Your task to perform on an android device: Open Reddit.com Image 0: 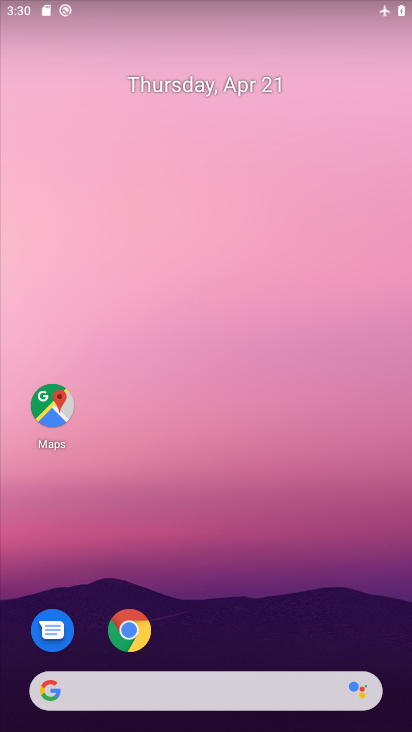
Step 0: drag from (185, 659) to (192, 228)
Your task to perform on an android device: Open Reddit.com Image 1: 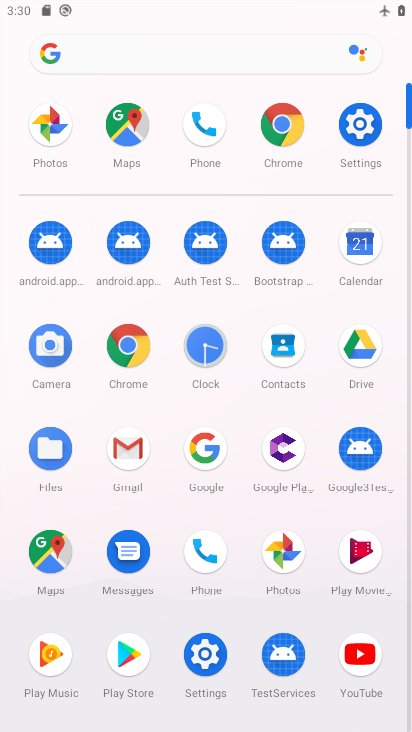
Step 1: click (282, 114)
Your task to perform on an android device: Open Reddit.com Image 2: 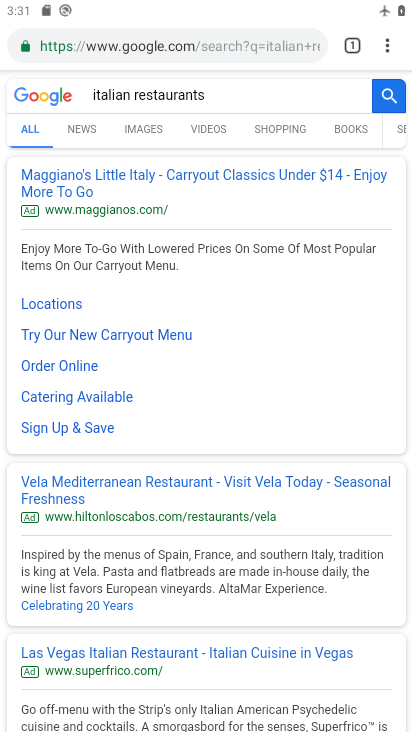
Step 2: click (212, 59)
Your task to perform on an android device: Open Reddit.com Image 3: 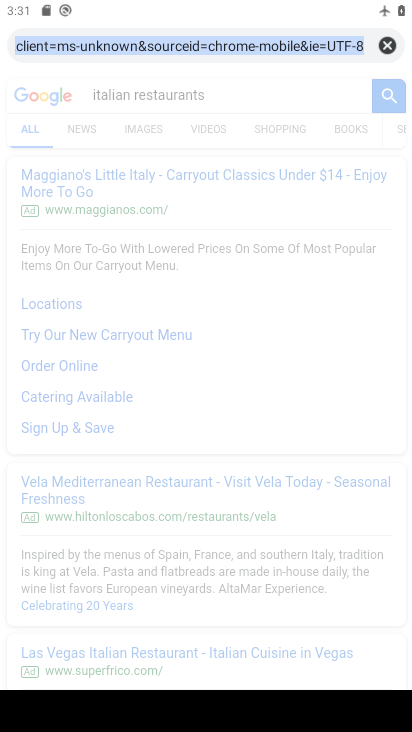
Step 3: click (393, 43)
Your task to perform on an android device: Open Reddit.com Image 4: 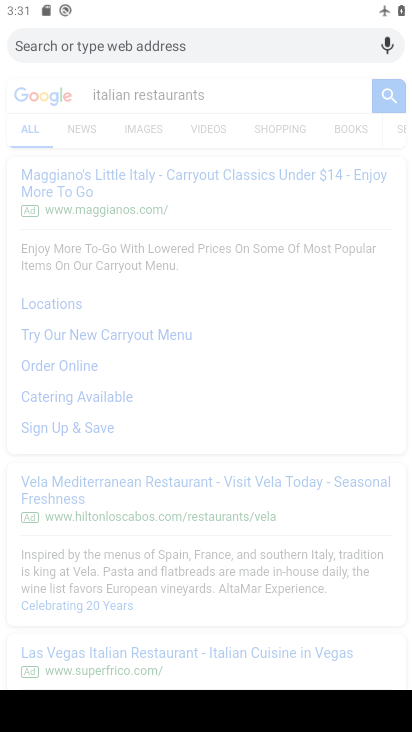
Step 4: type "reddit.com"
Your task to perform on an android device: Open Reddit.com Image 5: 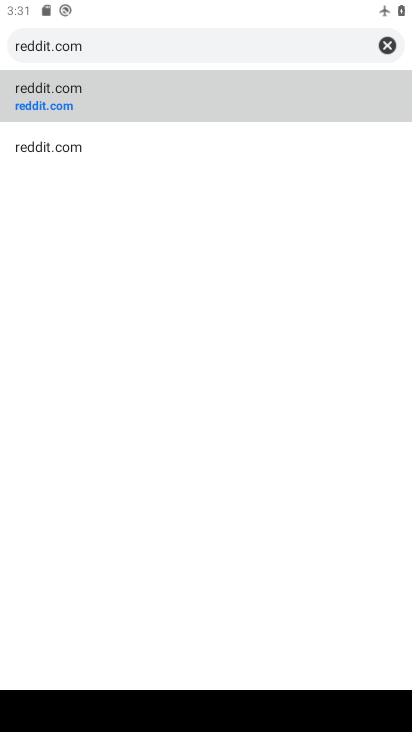
Step 5: click (59, 106)
Your task to perform on an android device: Open Reddit.com Image 6: 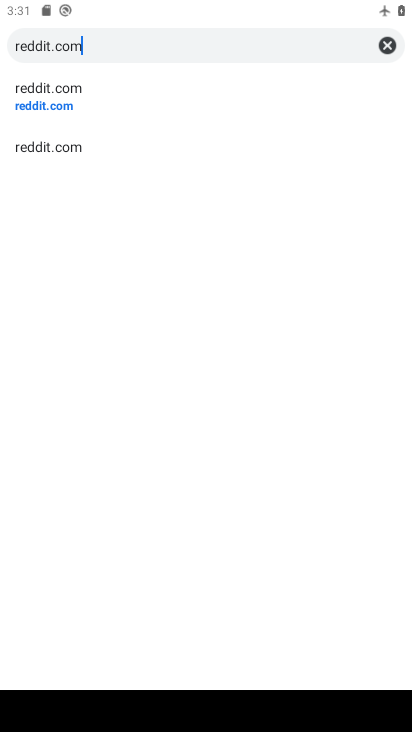
Step 6: click (48, 103)
Your task to perform on an android device: Open Reddit.com Image 7: 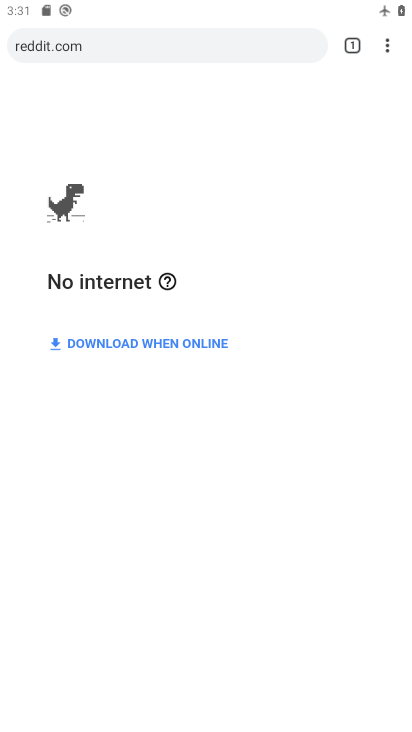
Step 7: task complete